Your task to perform on an android device: change the clock display to show seconds Image 0: 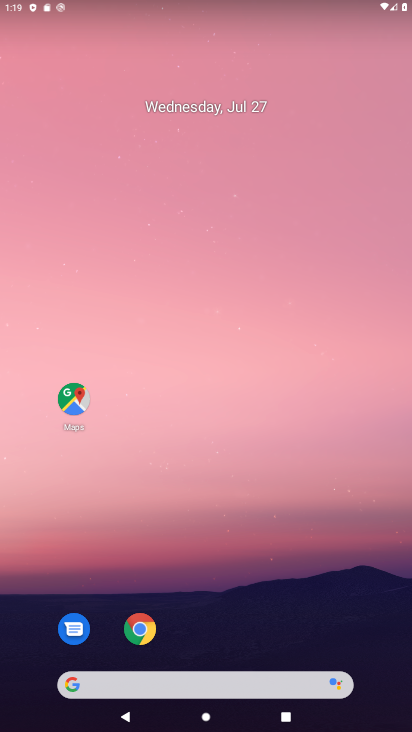
Step 0: press home button
Your task to perform on an android device: change the clock display to show seconds Image 1: 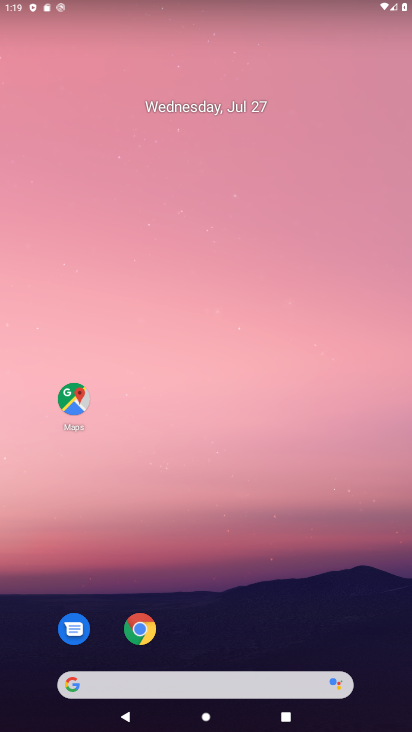
Step 1: drag from (249, 640) to (239, 69)
Your task to perform on an android device: change the clock display to show seconds Image 2: 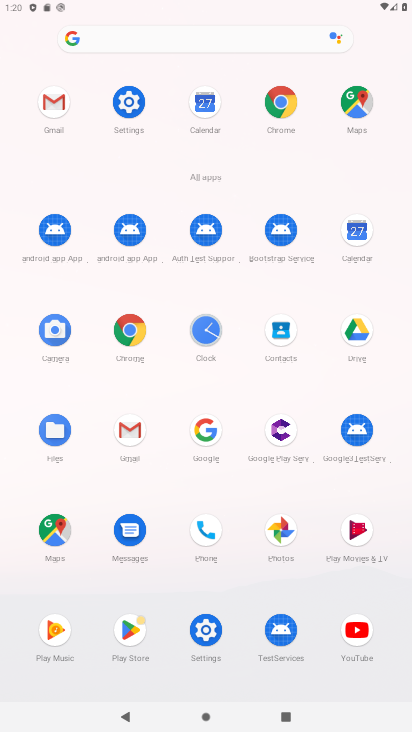
Step 2: click (206, 340)
Your task to perform on an android device: change the clock display to show seconds Image 3: 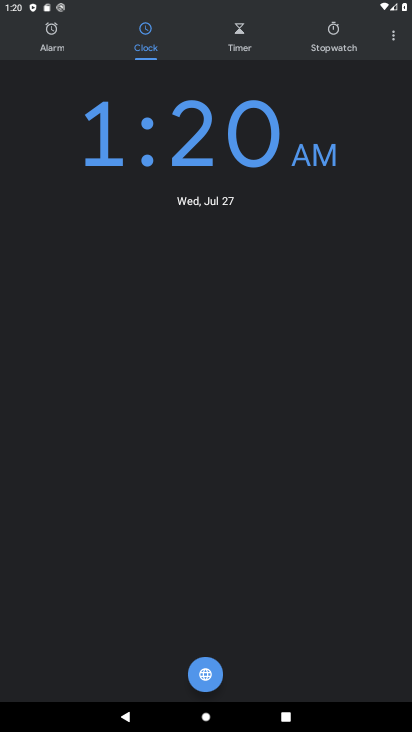
Step 3: click (394, 42)
Your task to perform on an android device: change the clock display to show seconds Image 4: 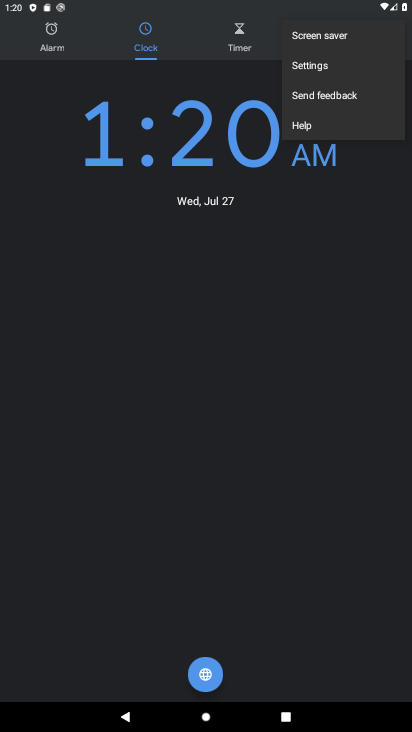
Step 4: click (299, 67)
Your task to perform on an android device: change the clock display to show seconds Image 5: 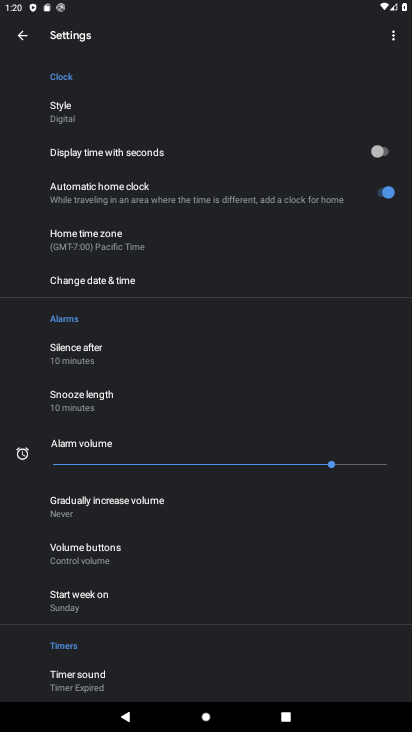
Step 5: click (377, 149)
Your task to perform on an android device: change the clock display to show seconds Image 6: 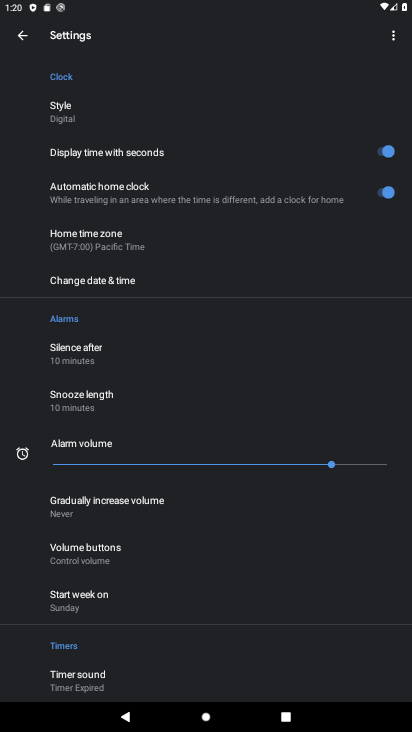
Step 6: task complete